Your task to perform on an android device: set the stopwatch Image 0: 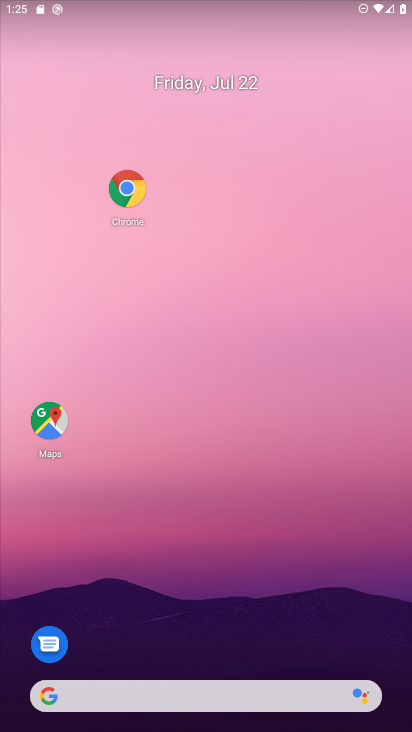
Step 0: click (131, 183)
Your task to perform on an android device: set the stopwatch Image 1: 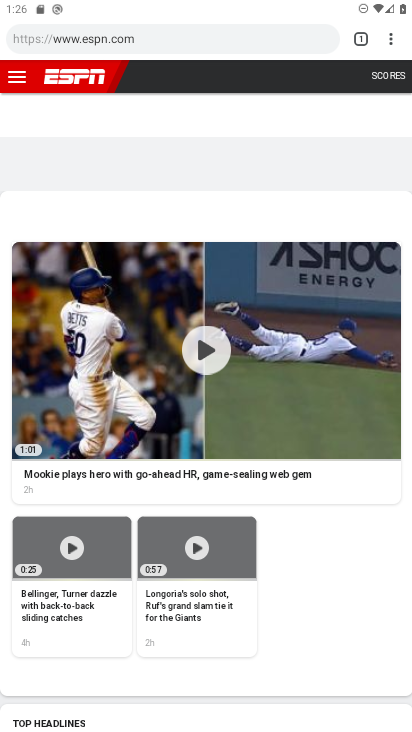
Step 1: click (397, 41)
Your task to perform on an android device: set the stopwatch Image 2: 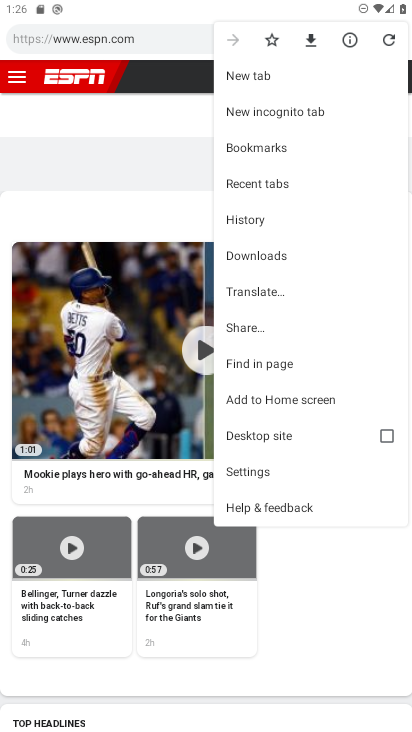
Step 2: click (279, 464)
Your task to perform on an android device: set the stopwatch Image 3: 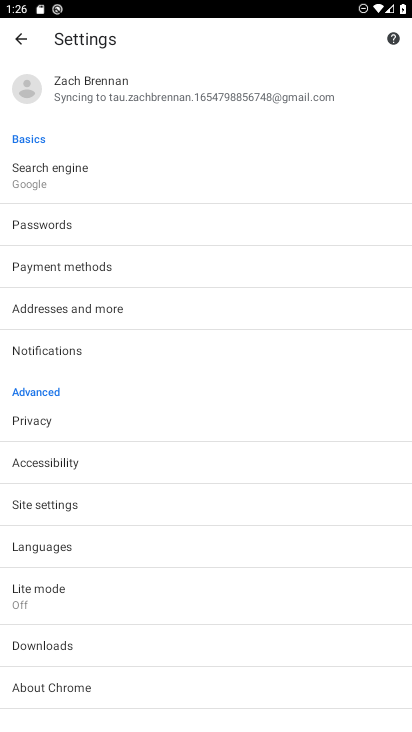
Step 3: press home button
Your task to perform on an android device: set the stopwatch Image 4: 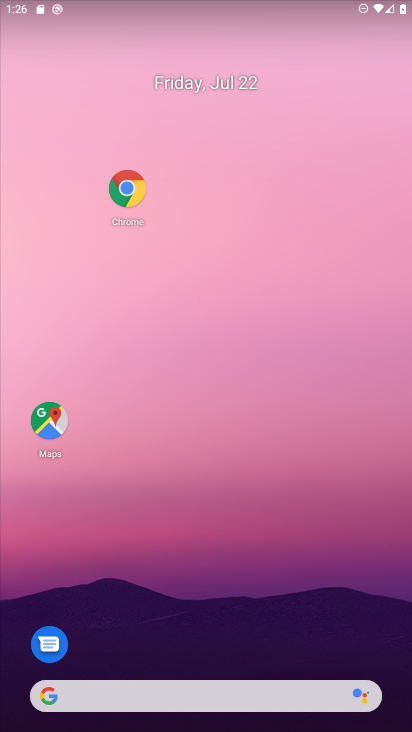
Step 4: drag from (176, 664) to (282, 245)
Your task to perform on an android device: set the stopwatch Image 5: 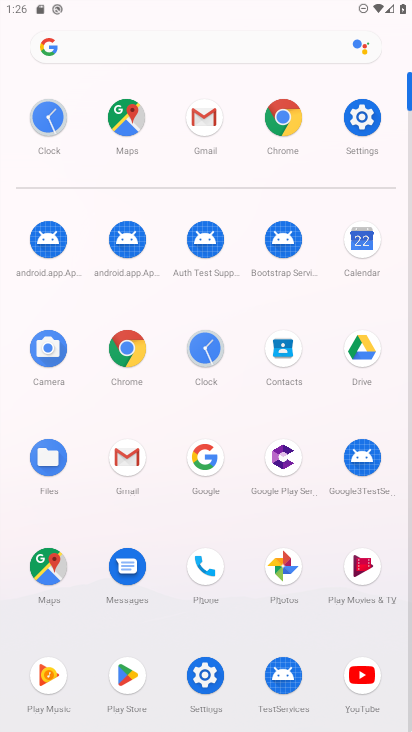
Step 5: click (226, 367)
Your task to perform on an android device: set the stopwatch Image 6: 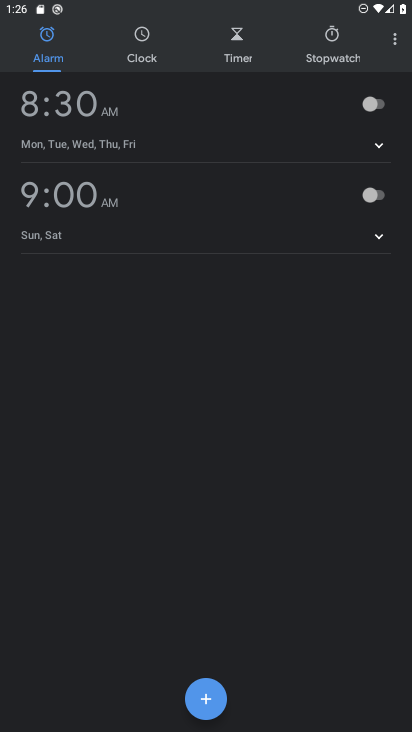
Step 6: click (404, 45)
Your task to perform on an android device: set the stopwatch Image 7: 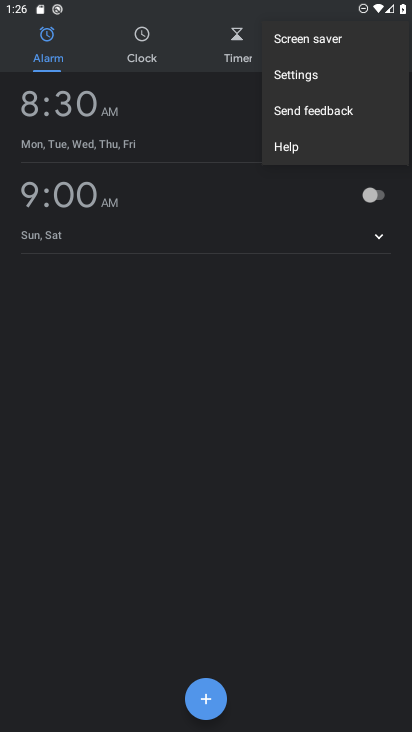
Step 7: click (189, 390)
Your task to perform on an android device: set the stopwatch Image 8: 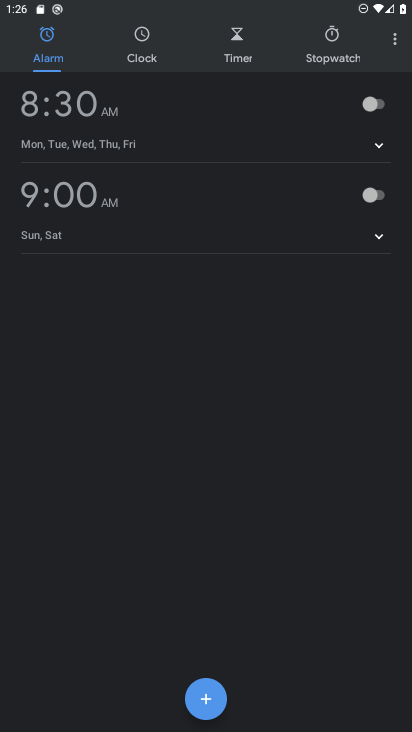
Step 8: click (192, 353)
Your task to perform on an android device: set the stopwatch Image 9: 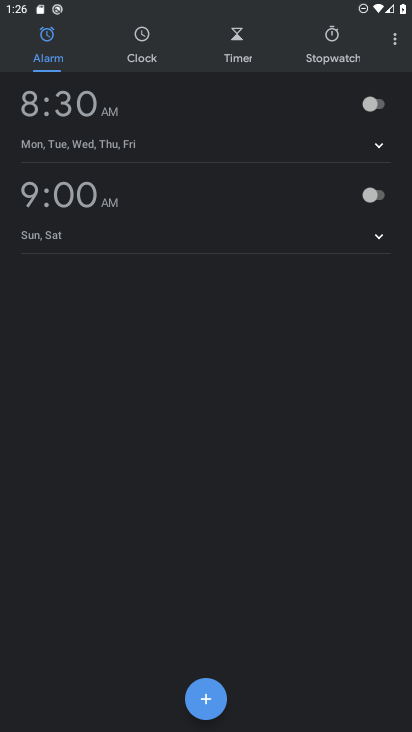
Step 9: click (326, 57)
Your task to perform on an android device: set the stopwatch Image 10: 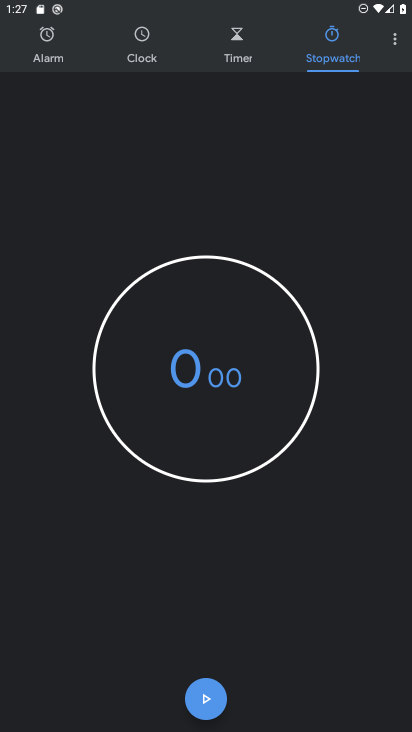
Step 10: click (197, 698)
Your task to perform on an android device: set the stopwatch Image 11: 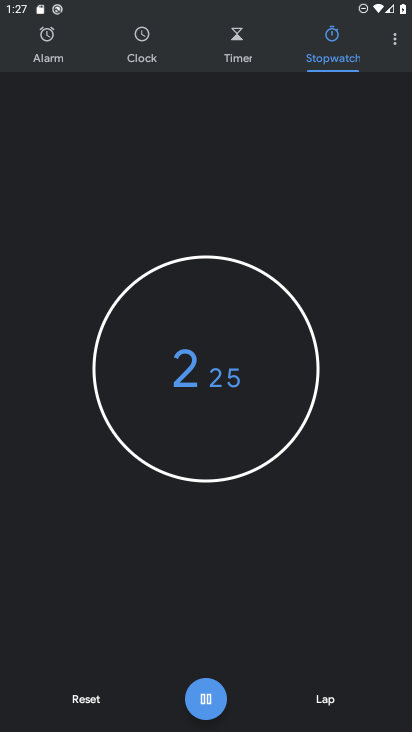
Step 11: task complete